Your task to perform on an android device: set the stopwatch Image 0: 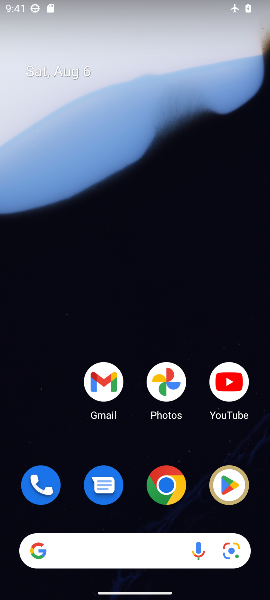
Step 0: drag from (132, 434) to (187, 0)
Your task to perform on an android device: set the stopwatch Image 1: 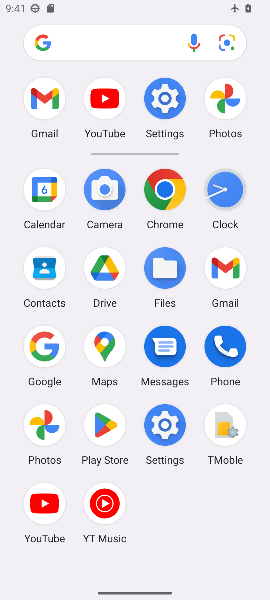
Step 1: click (223, 187)
Your task to perform on an android device: set the stopwatch Image 2: 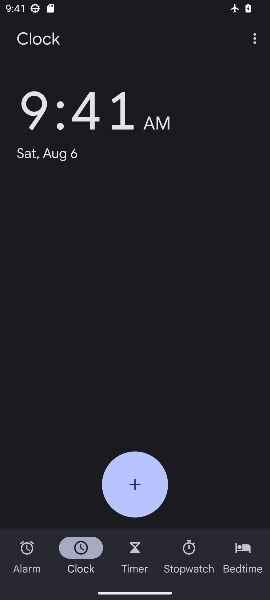
Step 2: click (200, 559)
Your task to perform on an android device: set the stopwatch Image 3: 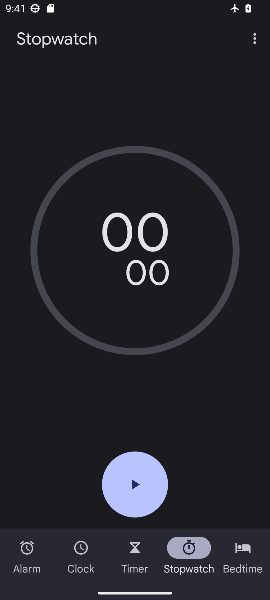
Step 3: click (116, 486)
Your task to perform on an android device: set the stopwatch Image 4: 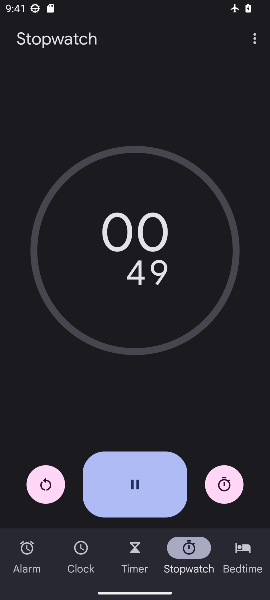
Step 4: click (116, 486)
Your task to perform on an android device: set the stopwatch Image 5: 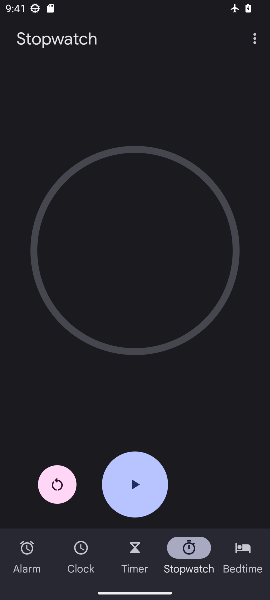
Step 5: task complete